Your task to perform on an android device: Open Maps and search for coffee Image 0: 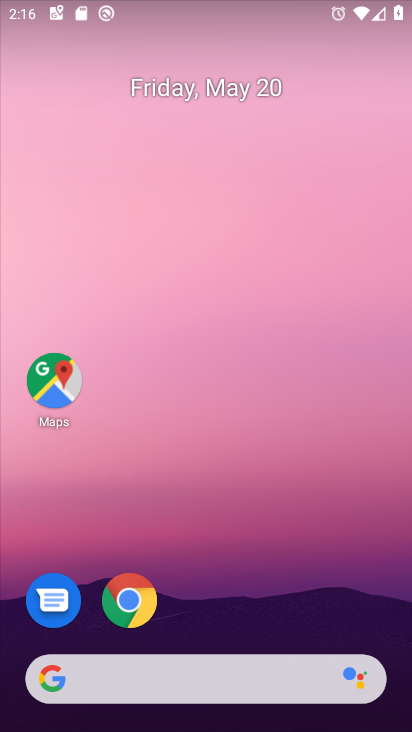
Step 0: click (51, 384)
Your task to perform on an android device: Open Maps and search for coffee Image 1: 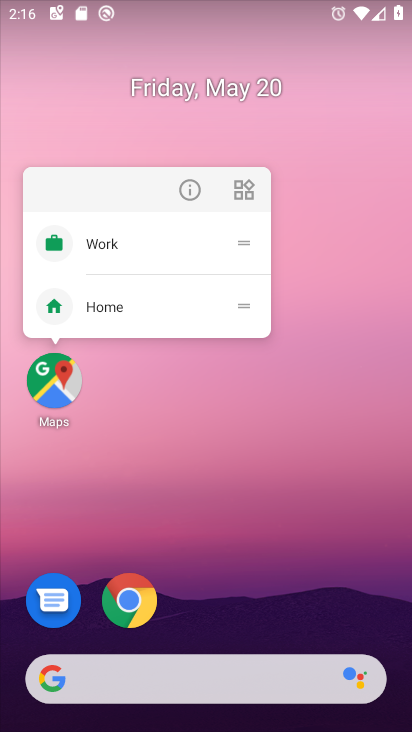
Step 1: click (49, 389)
Your task to perform on an android device: Open Maps and search for coffee Image 2: 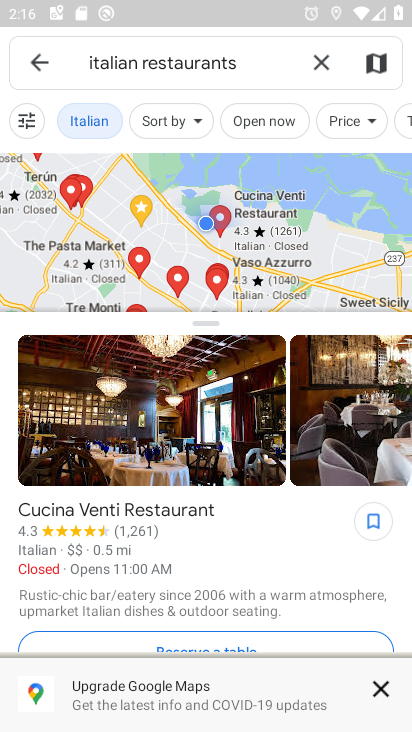
Step 2: click (325, 68)
Your task to perform on an android device: Open Maps and search for coffee Image 3: 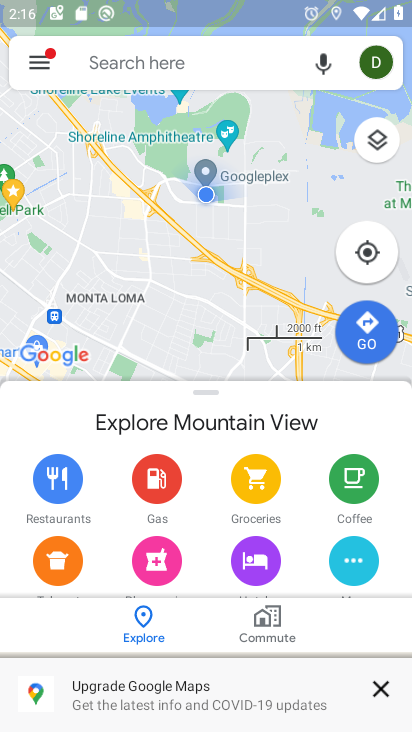
Step 3: click (206, 67)
Your task to perform on an android device: Open Maps and search for coffee Image 4: 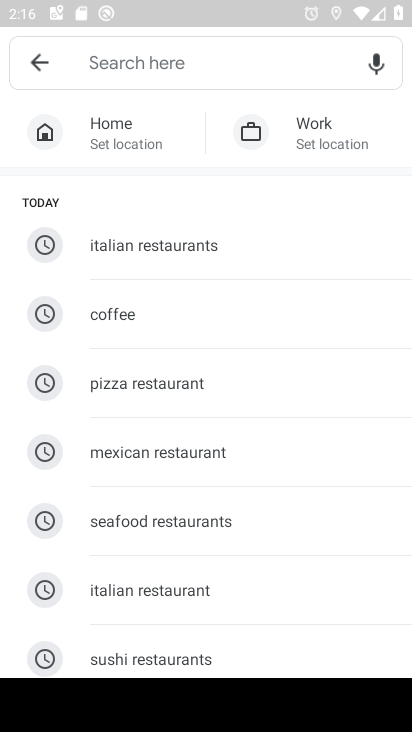
Step 4: type "coffee"
Your task to perform on an android device: Open Maps and search for coffee Image 5: 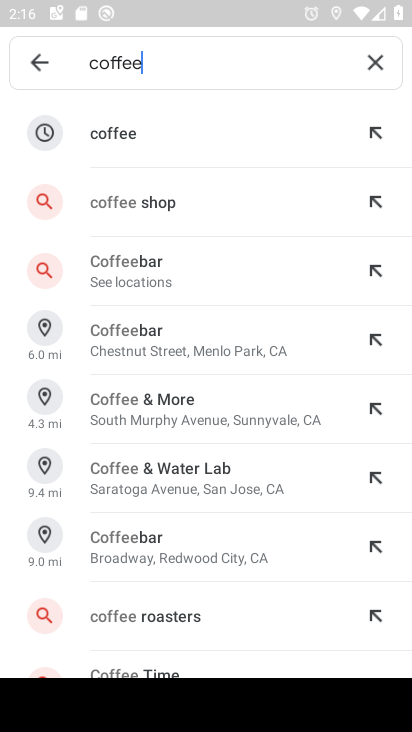
Step 5: click (114, 130)
Your task to perform on an android device: Open Maps and search for coffee Image 6: 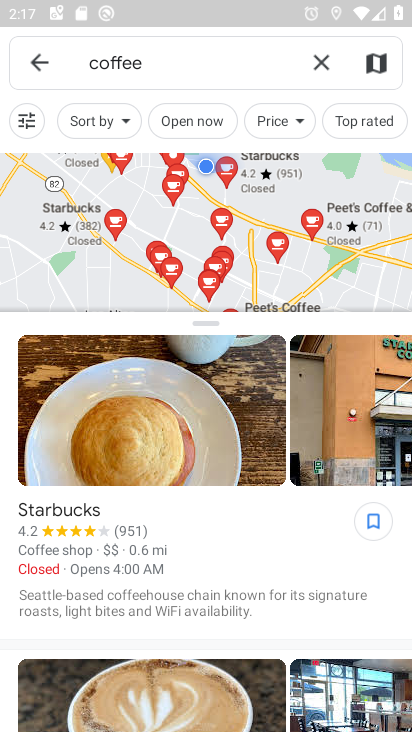
Step 6: task complete